Your task to perform on an android device: turn on notifications settings in the gmail app Image 0: 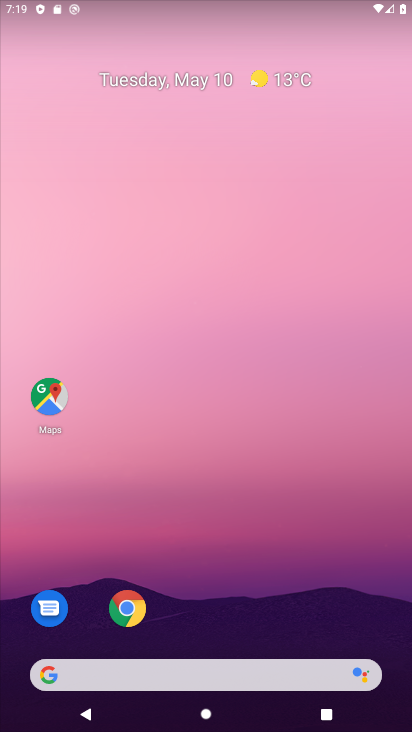
Step 0: drag from (232, 595) to (259, 118)
Your task to perform on an android device: turn on notifications settings in the gmail app Image 1: 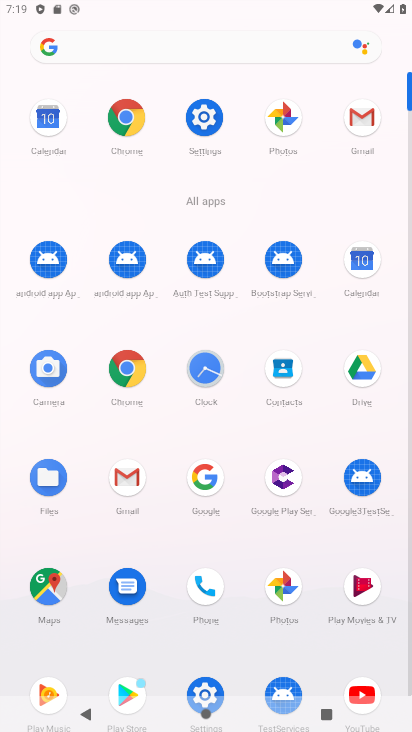
Step 1: click (361, 146)
Your task to perform on an android device: turn on notifications settings in the gmail app Image 2: 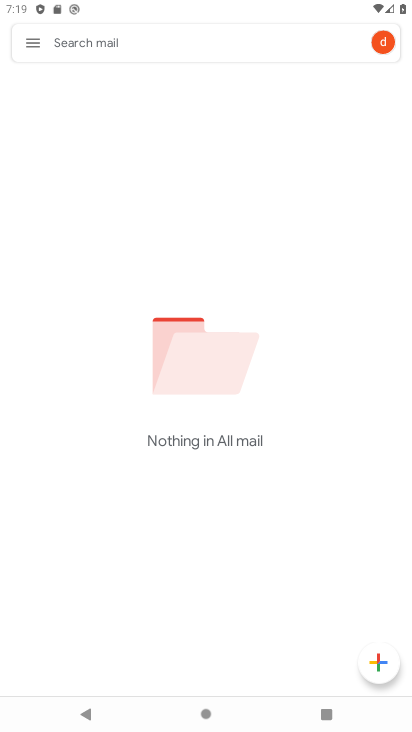
Step 2: click (40, 59)
Your task to perform on an android device: turn on notifications settings in the gmail app Image 3: 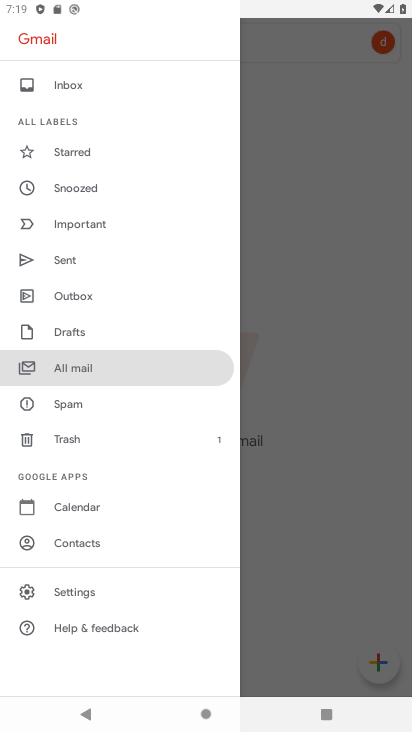
Step 3: click (86, 597)
Your task to perform on an android device: turn on notifications settings in the gmail app Image 4: 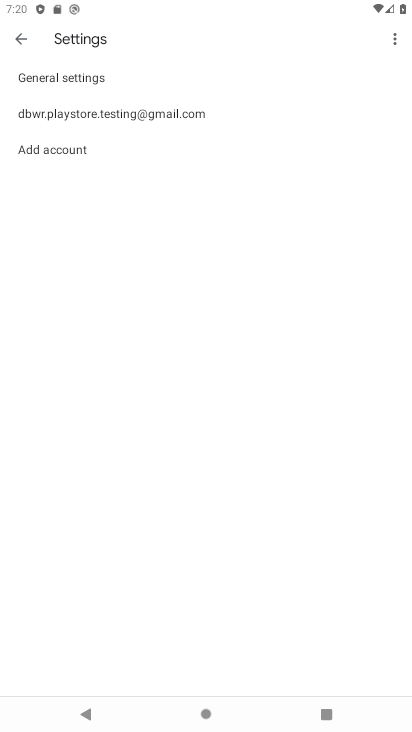
Step 4: click (102, 122)
Your task to perform on an android device: turn on notifications settings in the gmail app Image 5: 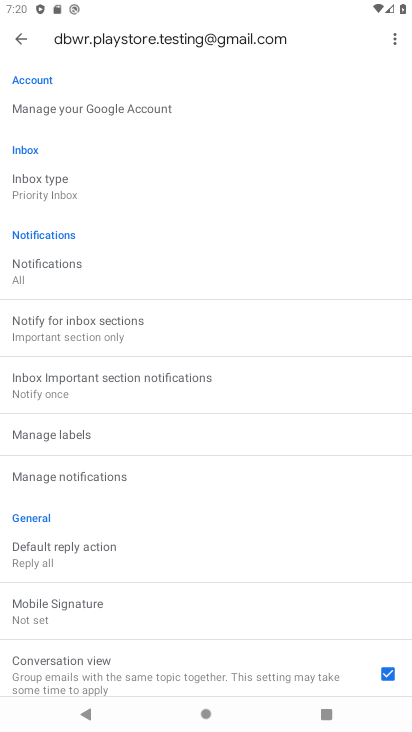
Step 5: click (56, 284)
Your task to perform on an android device: turn on notifications settings in the gmail app Image 6: 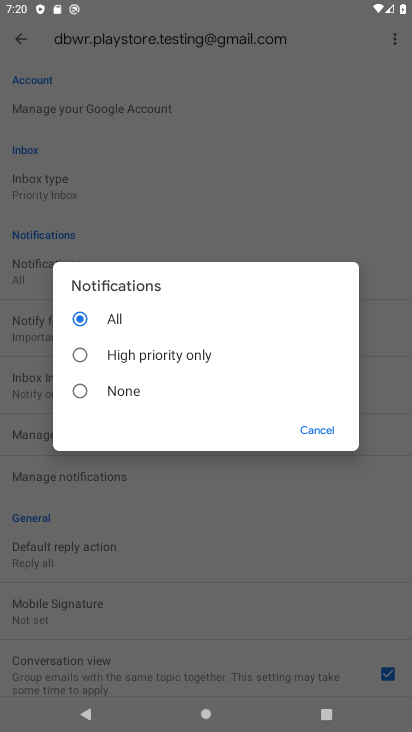
Step 6: task complete